Your task to perform on an android device: check data usage Image 0: 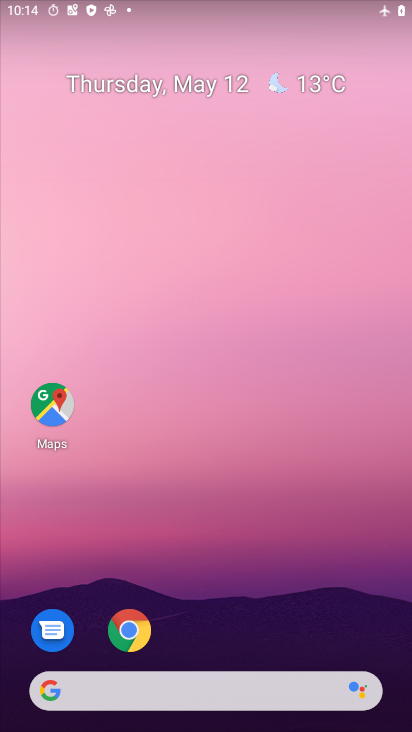
Step 0: drag from (240, 691) to (241, 230)
Your task to perform on an android device: check data usage Image 1: 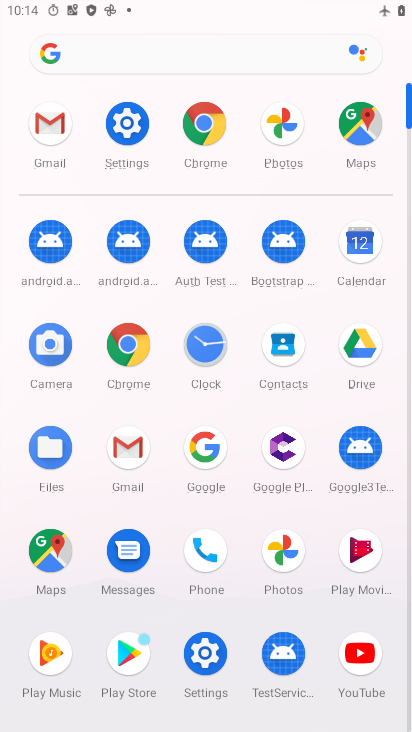
Step 1: click (205, 652)
Your task to perform on an android device: check data usage Image 2: 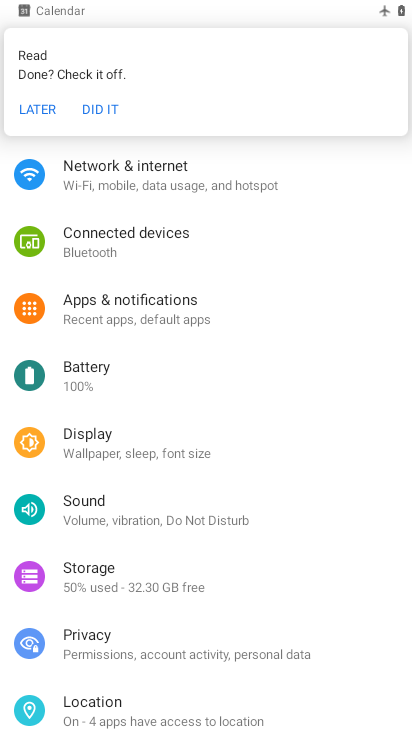
Step 2: click (47, 102)
Your task to perform on an android device: check data usage Image 3: 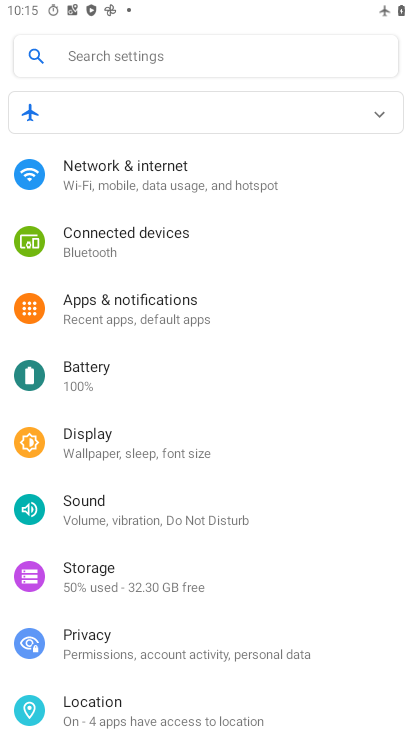
Step 3: click (110, 171)
Your task to perform on an android device: check data usage Image 4: 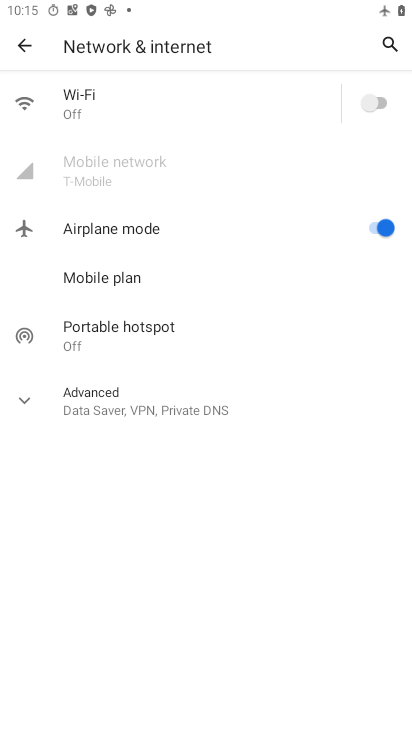
Step 4: click (384, 229)
Your task to perform on an android device: check data usage Image 5: 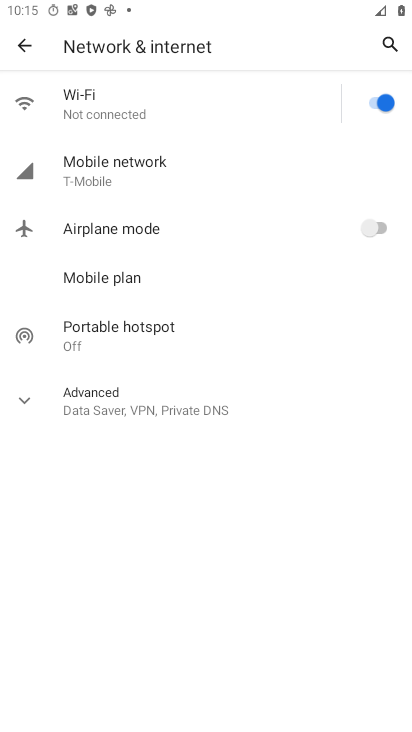
Step 5: click (134, 179)
Your task to perform on an android device: check data usage Image 6: 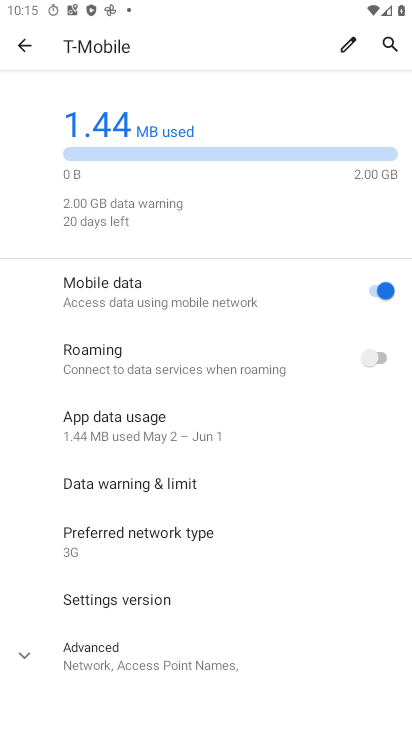
Step 6: task complete